Your task to perform on an android device: Go to network settings Image 0: 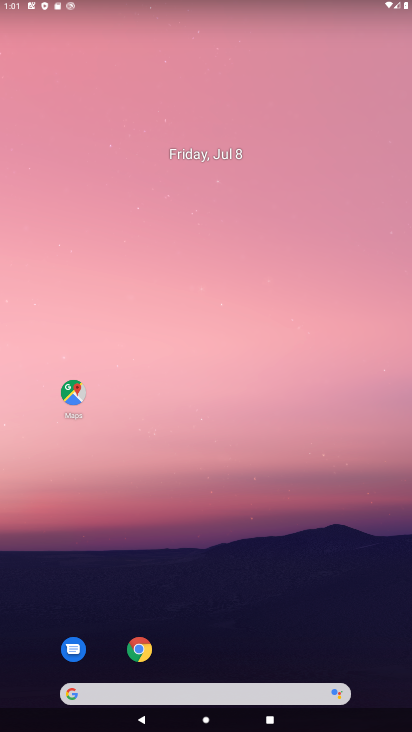
Step 0: click (350, 15)
Your task to perform on an android device: Go to network settings Image 1: 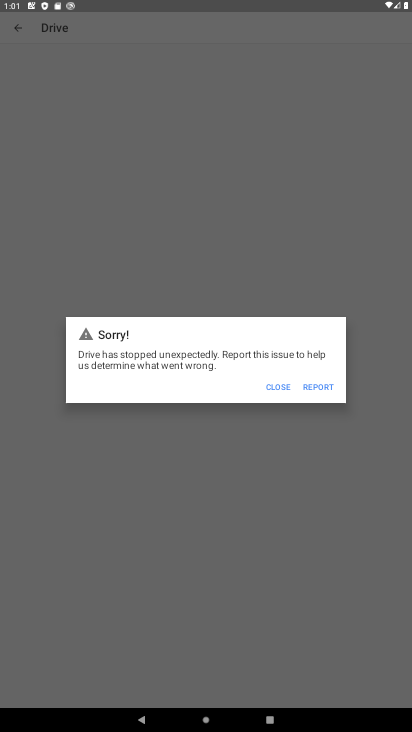
Step 1: drag from (31, 701) to (214, 3)
Your task to perform on an android device: Go to network settings Image 2: 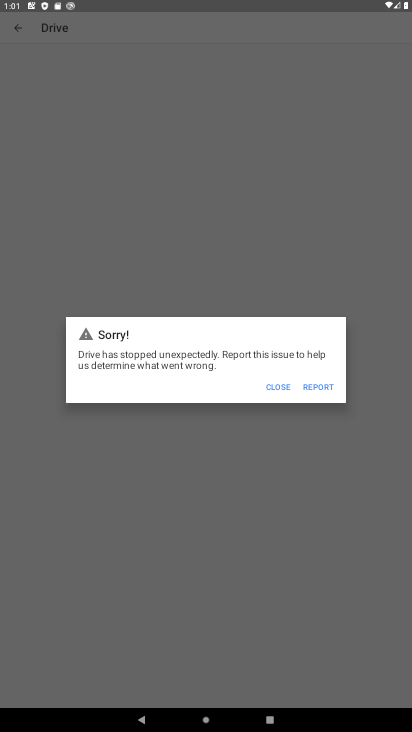
Step 2: press home button
Your task to perform on an android device: Go to network settings Image 3: 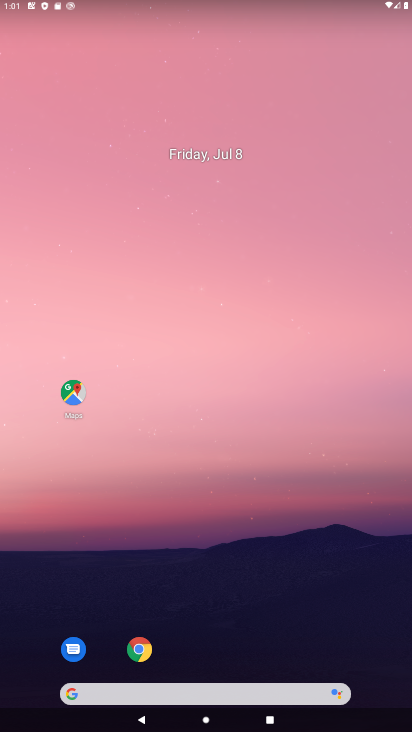
Step 3: drag from (20, 707) to (174, 127)
Your task to perform on an android device: Go to network settings Image 4: 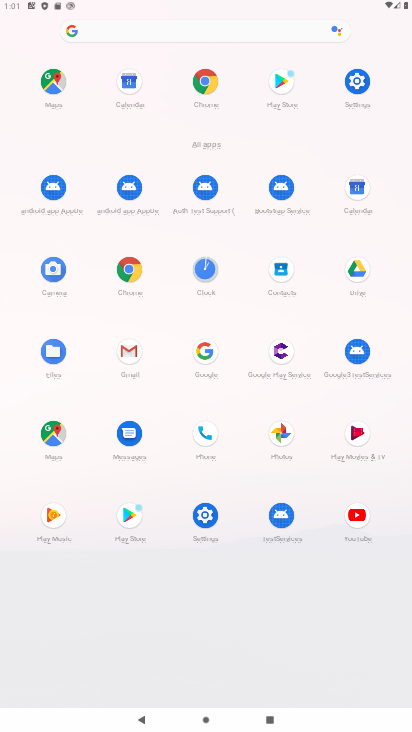
Step 4: click (352, 86)
Your task to perform on an android device: Go to network settings Image 5: 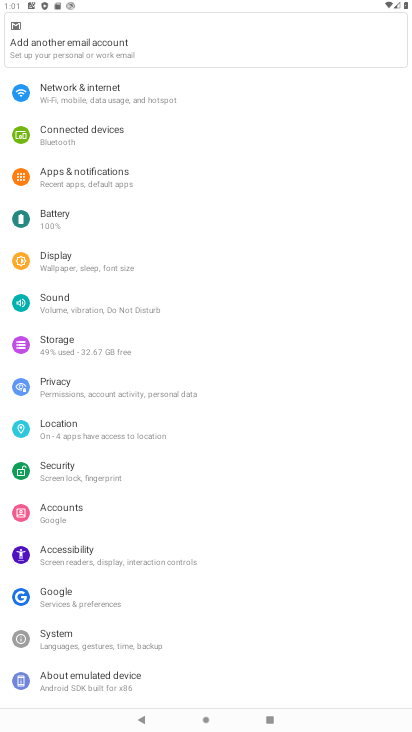
Step 5: click (126, 79)
Your task to perform on an android device: Go to network settings Image 6: 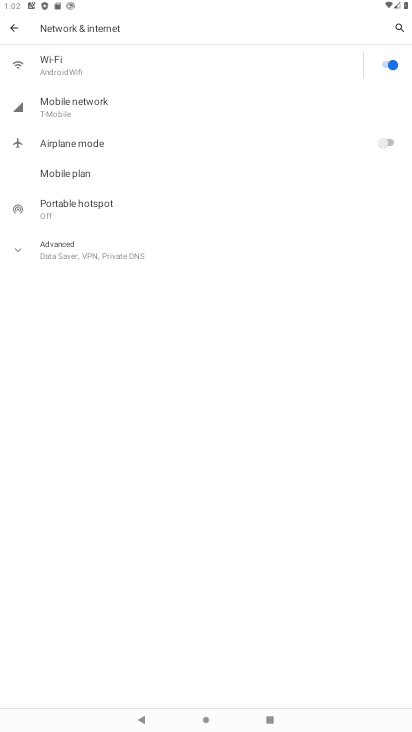
Step 6: task complete